Your task to perform on an android device: Open Amazon Image 0: 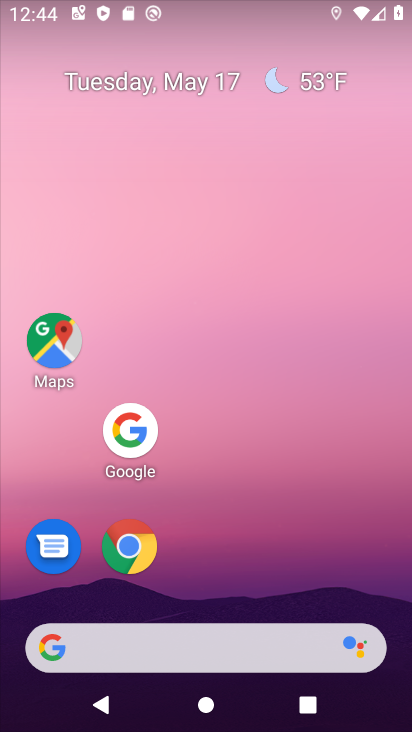
Step 0: click (126, 548)
Your task to perform on an android device: Open Amazon Image 1: 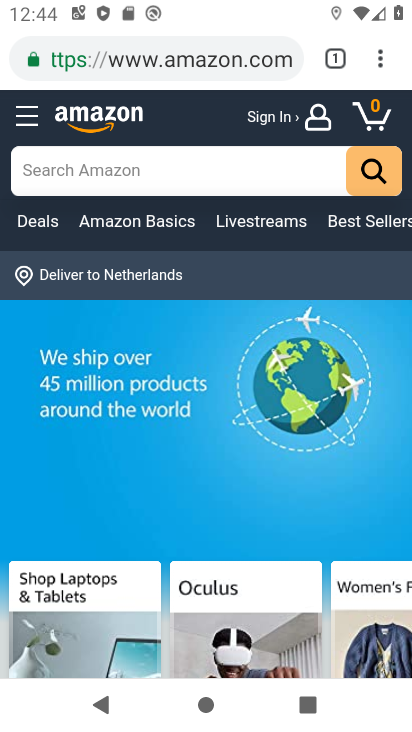
Step 1: task complete